Your task to perform on an android device: delete a single message in the gmail app Image 0: 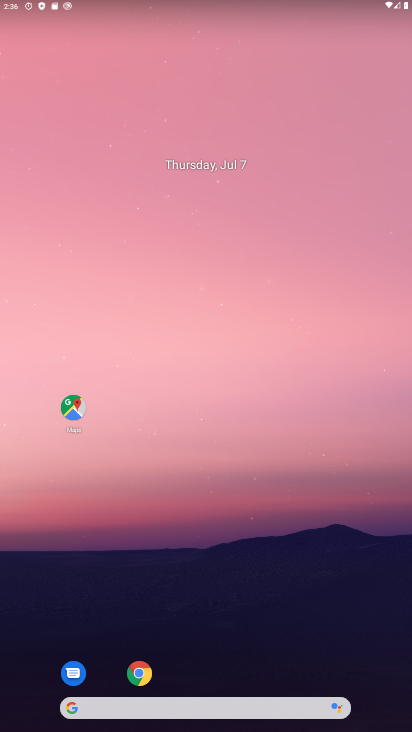
Step 0: drag from (340, 630) to (355, 15)
Your task to perform on an android device: delete a single message in the gmail app Image 1: 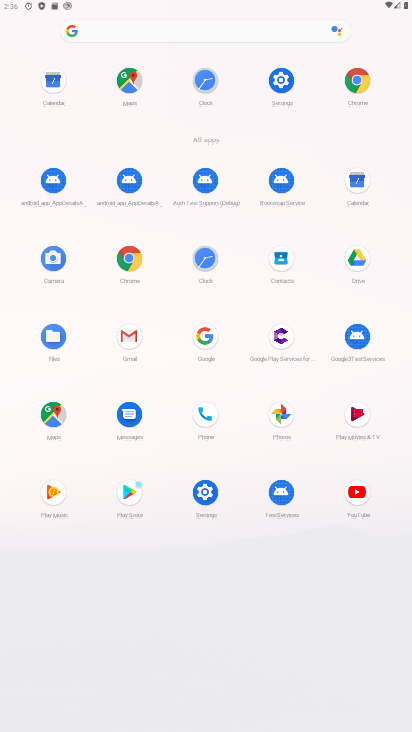
Step 1: click (126, 336)
Your task to perform on an android device: delete a single message in the gmail app Image 2: 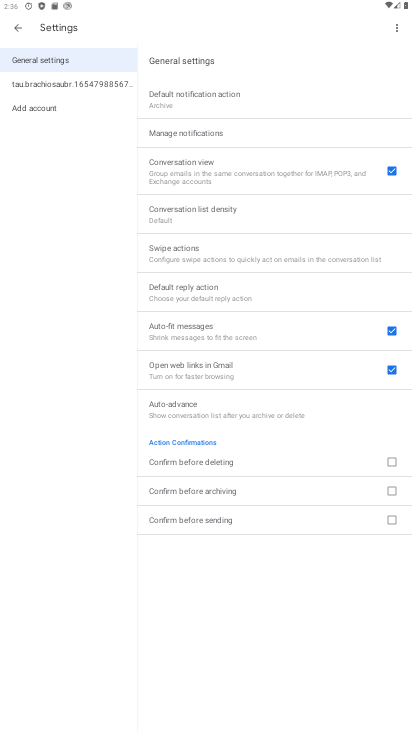
Step 2: click (13, 25)
Your task to perform on an android device: delete a single message in the gmail app Image 3: 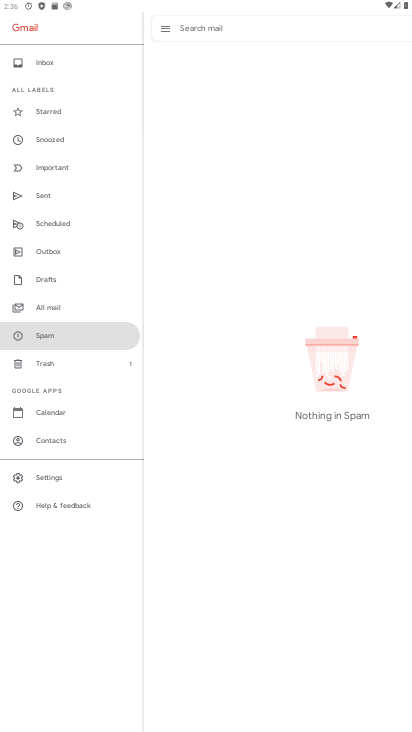
Step 3: task complete